Your task to perform on an android device: Play the last video I watched on Youtube Image 0: 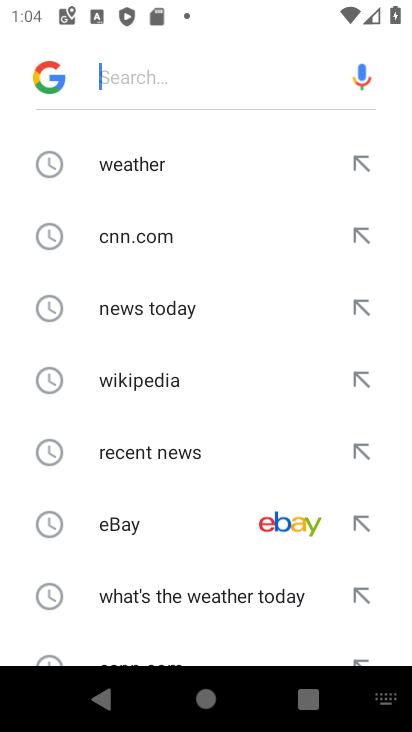
Step 0: press home button
Your task to perform on an android device: Play the last video I watched on Youtube Image 1: 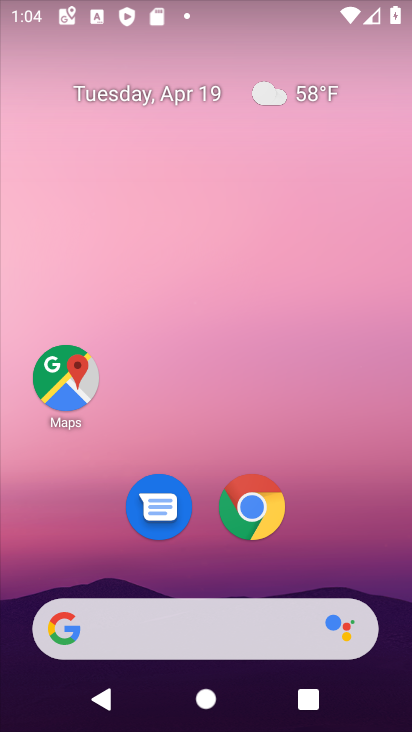
Step 1: drag from (212, 560) to (186, 51)
Your task to perform on an android device: Play the last video I watched on Youtube Image 2: 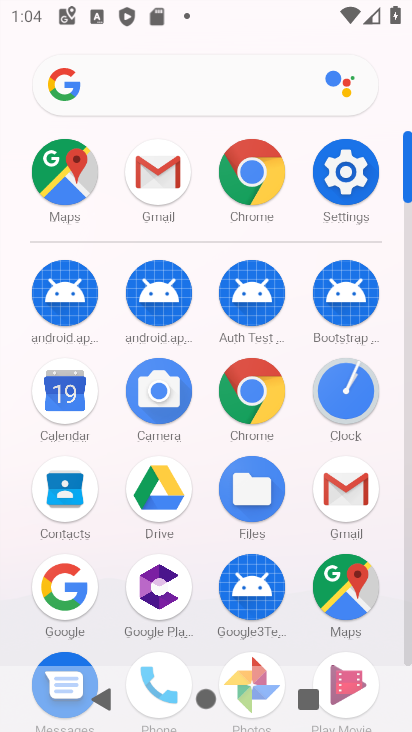
Step 2: drag from (202, 651) to (193, 115)
Your task to perform on an android device: Play the last video I watched on Youtube Image 3: 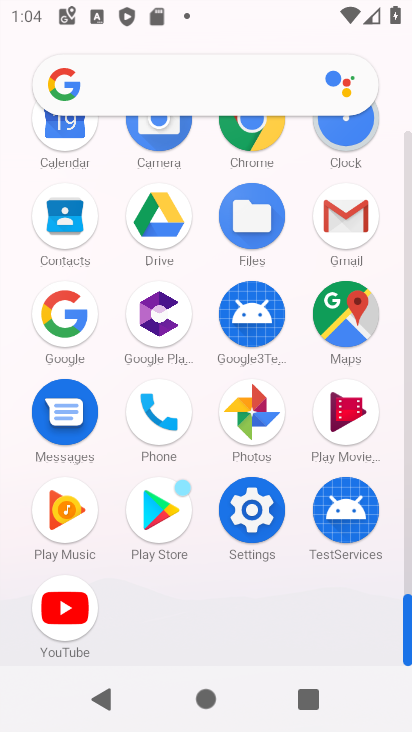
Step 3: click (63, 611)
Your task to perform on an android device: Play the last video I watched on Youtube Image 4: 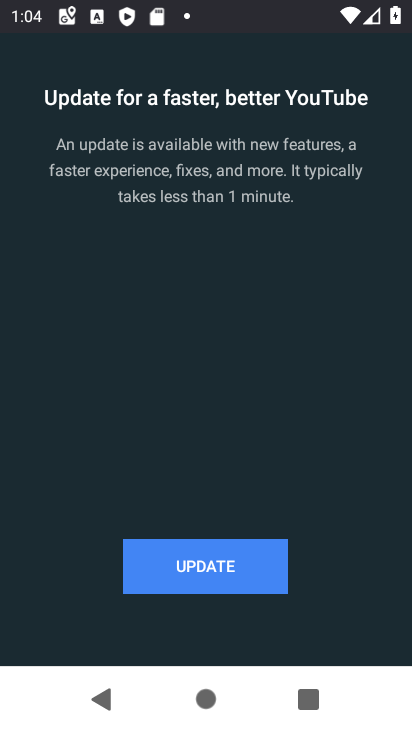
Step 4: click (226, 567)
Your task to perform on an android device: Play the last video I watched on Youtube Image 5: 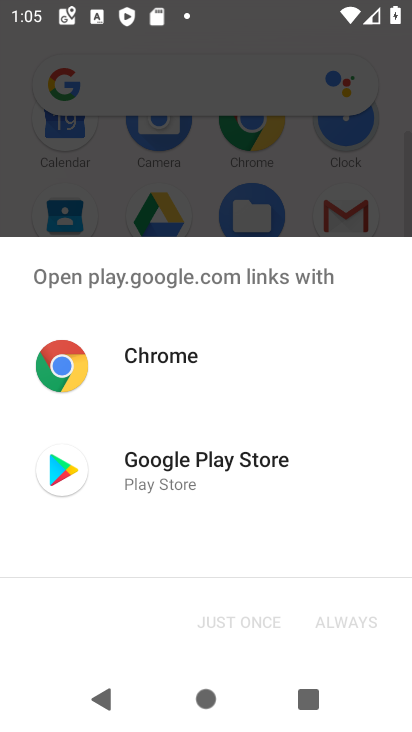
Step 5: click (198, 500)
Your task to perform on an android device: Play the last video I watched on Youtube Image 6: 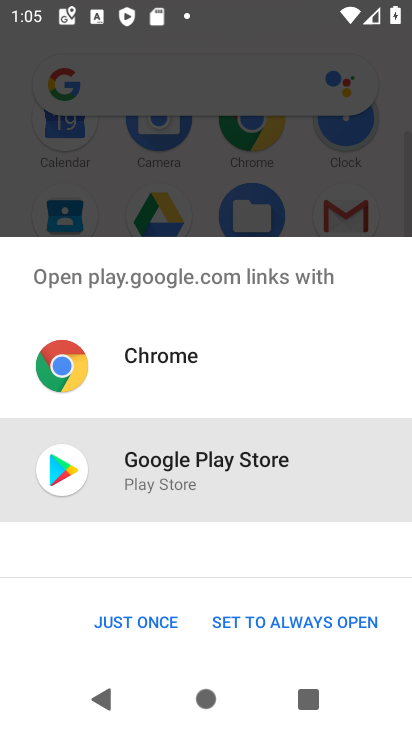
Step 6: click (157, 620)
Your task to perform on an android device: Play the last video I watched on Youtube Image 7: 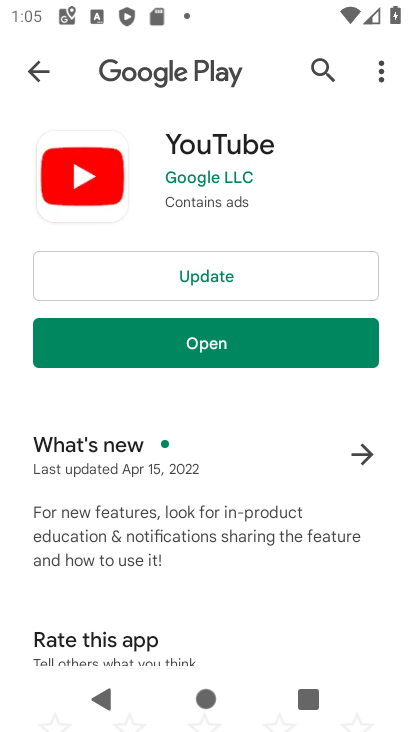
Step 7: click (157, 278)
Your task to perform on an android device: Play the last video I watched on Youtube Image 8: 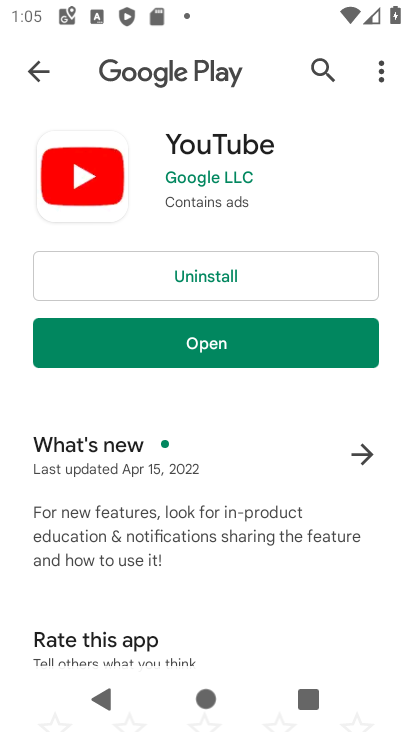
Step 8: click (184, 332)
Your task to perform on an android device: Play the last video I watched on Youtube Image 9: 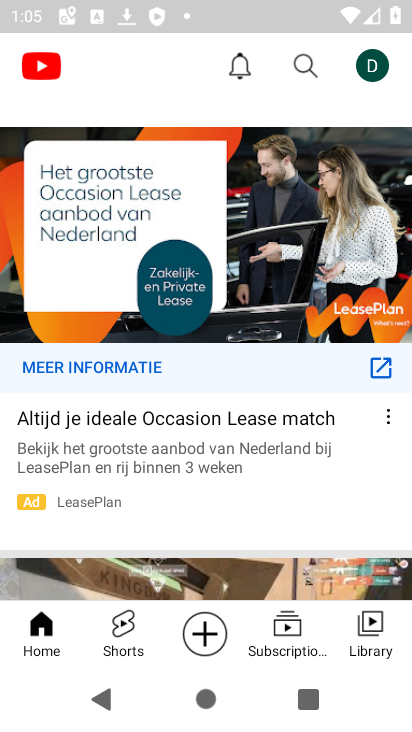
Step 9: click (368, 637)
Your task to perform on an android device: Play the last video I watched on Youtube Image 10: 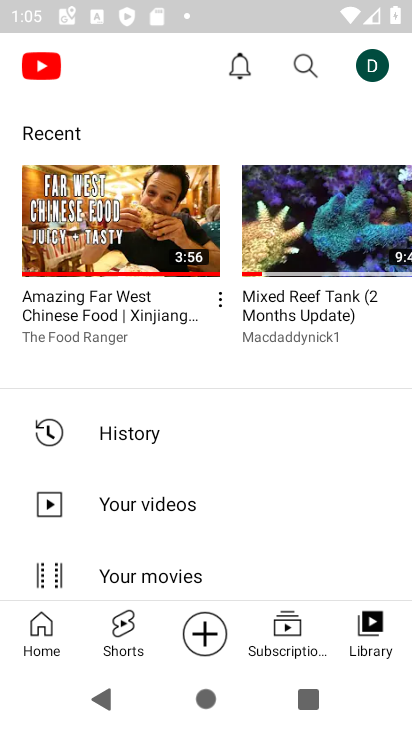
Step 10: click (127, 234)
Your task to perform on an android device: Play the last video I watched on Youtube Image 11: 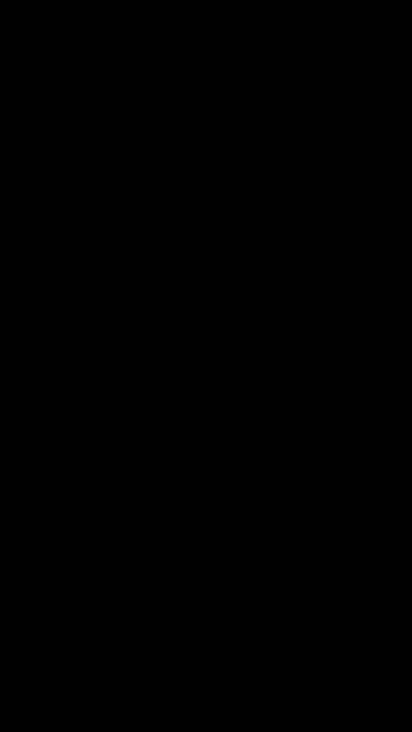
Step 11: task complete